Your task to perform on an android device: turn off notifications settings in the gmail app Image 0: 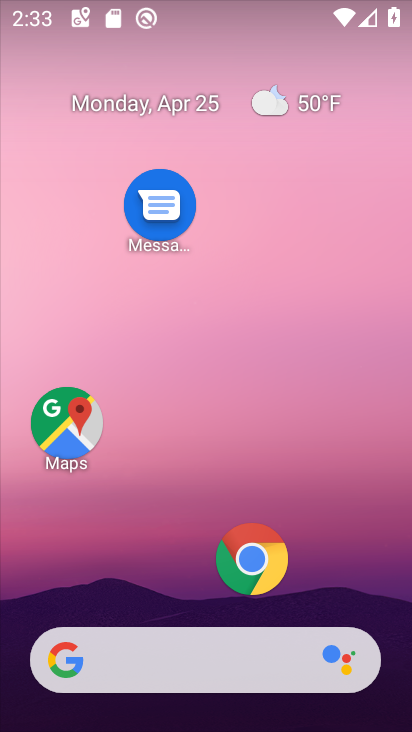
Step 0: drag from (138, 590) to (250, 35)
Your task to perform on an android device: turn off notifications settings in the gmail app Image 1: 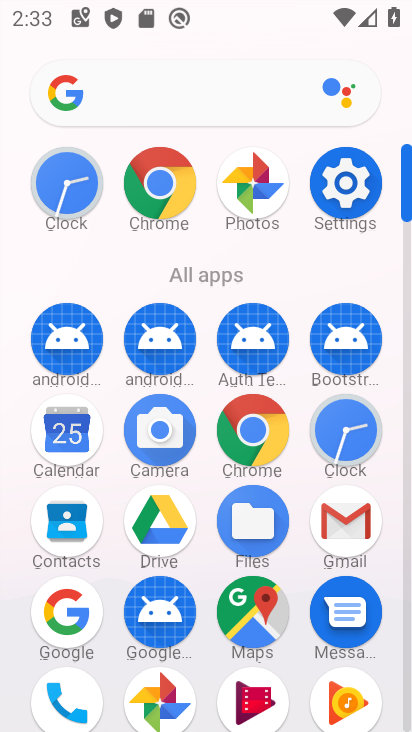
Step 1: click (344, 521)
Your task to perform on an android device: turn off notifications settings in the gmail app Image 2: 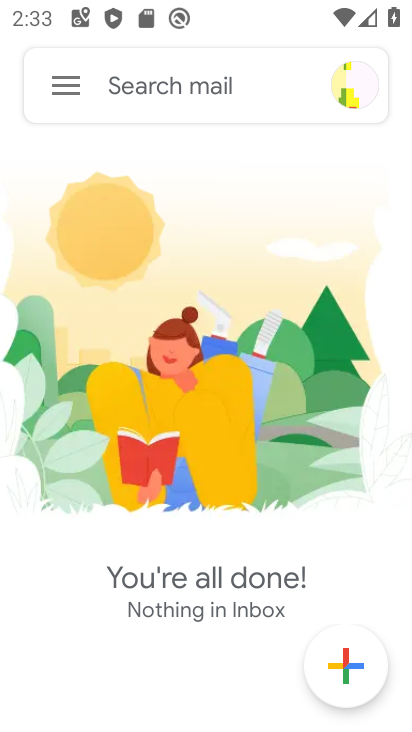
Step 2: click (71, 78)
Your task to perform on an android device: turn off notifications settings in the gmail app Image 3: 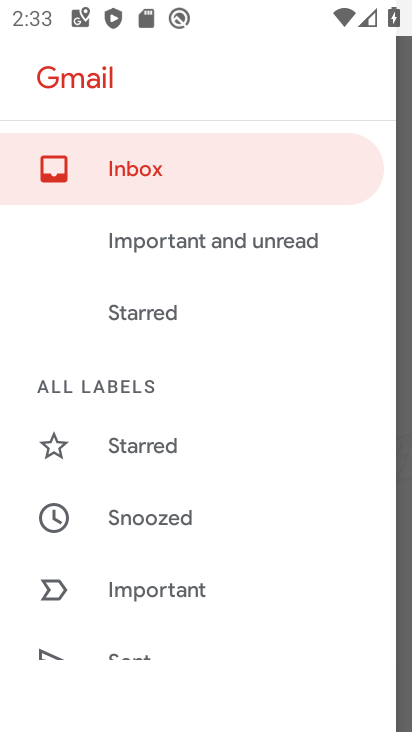
Step 3: drag from (146, 575) to (222, 177)
Your task to perform on an android device: turn off notifications settings in the gmail app Image 4: 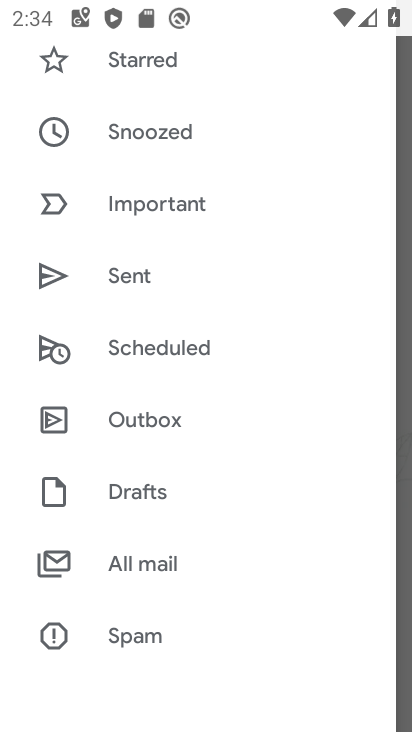
Step 4: drag from (145, 535) to (189, 224)
Your task to perform on an android device: turn off notifications settings in the gmail app Image 5: 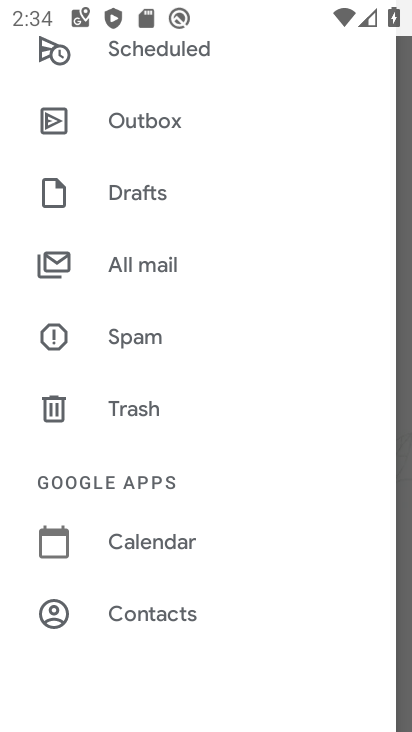
Step 5: drag from (142, 614) to (276, 1)
Your task to perform on an android device: turn off notifications settings in the gmail app Image 6: 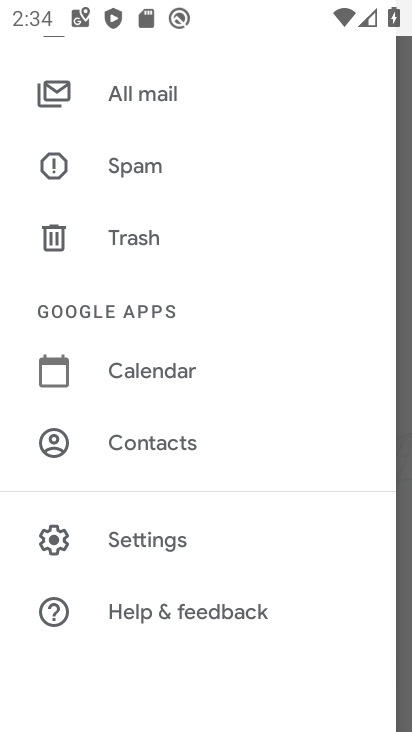
Step 6: click (166, 539)
Your task to perform on an android device: turn off notifications settings in the gmail app Image 7: 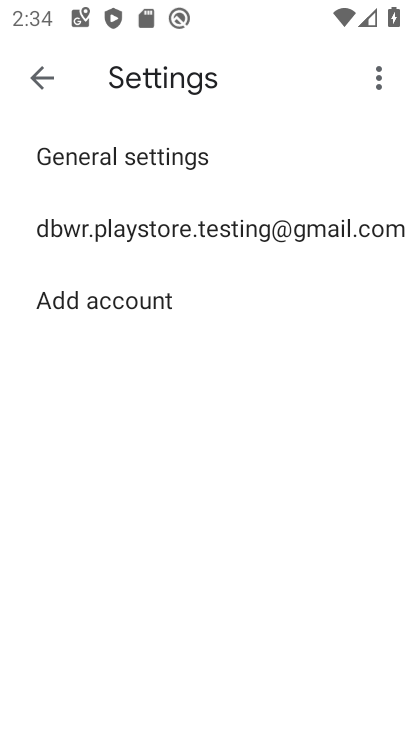
Step 7: click (169, 163)
Your task to perform on an android device: turn off notifications settings in the gmail app Image 8: 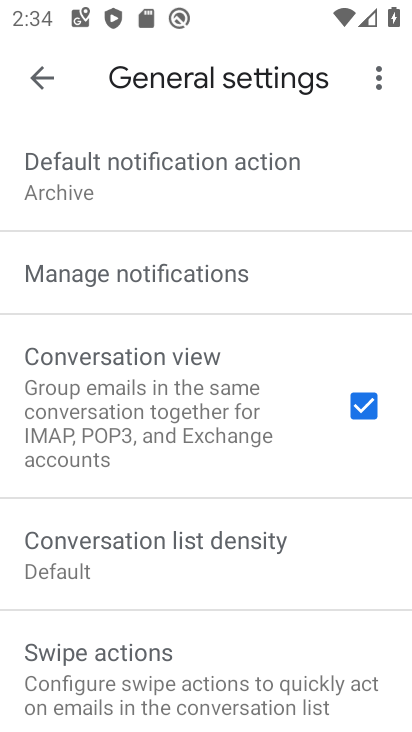
Step 8: drag from (139, 462) to (159, 167)
Your task to perform on an android device: turn off notifications settings in the gmail app Image 9: 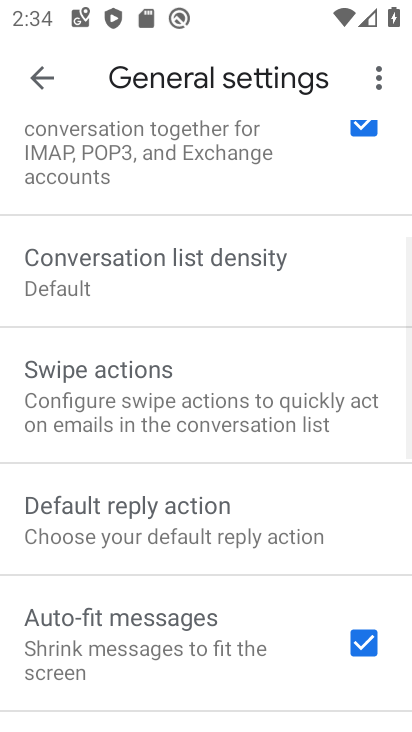
Step 9: drag from (161, 181) to (94, 614)
Your task to perform on an android device: turn off notifications settings in the gmail app Image 10: 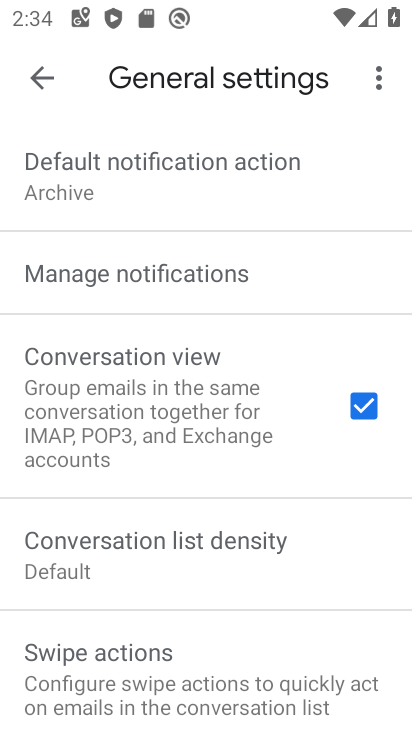
Step 10: click (194, 268)
Your task to perform on an android device: turn off notifications settings in the gmail app Image 11: 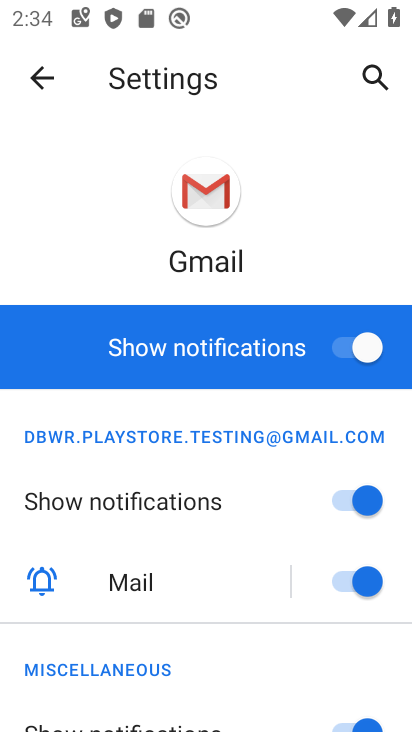
Step 11: click (339, 352)
Your task to perform on an android device: turn off notifications settings in the gmail app Image 12: 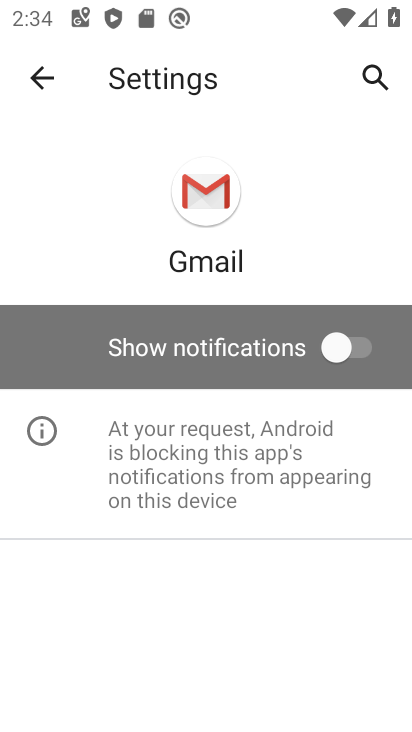
Step 12: task complete